Your task to perform on an android device: find photos in the google photos app Image 0: 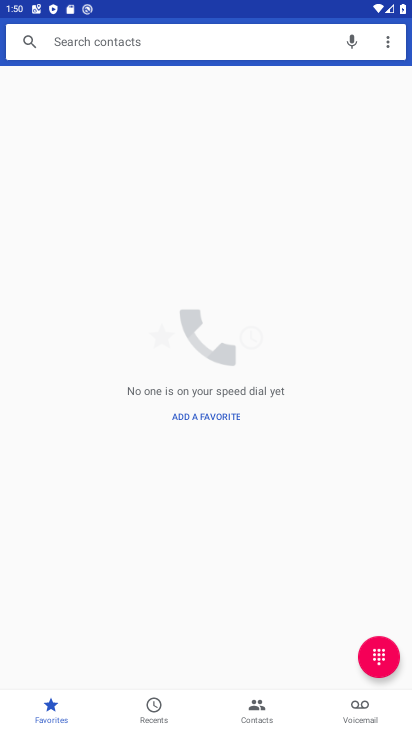
Step 0: press home button
Your task to perform on an android device: find photos in the google photos app Image 1: 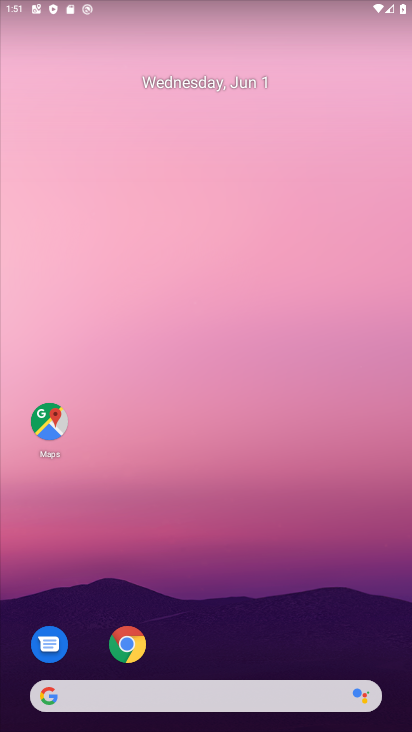
Step 1: drag from (240, 627) to (320, 211)
Your task to perform on an android device: find photos in the google photos app Image 2: 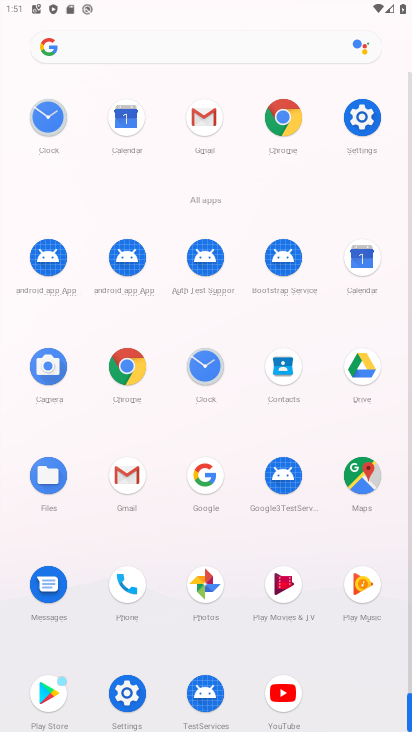
Step 2: click (208, 587)
Your task to perform on an android device: find photos in the google photos app Image 3: 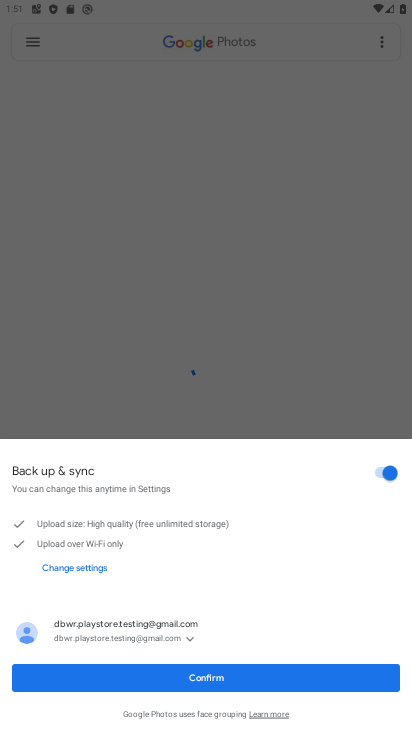
Step 3: click (194, 674)
Your task to perform on an android device: find photos in the google photos app Image 4: 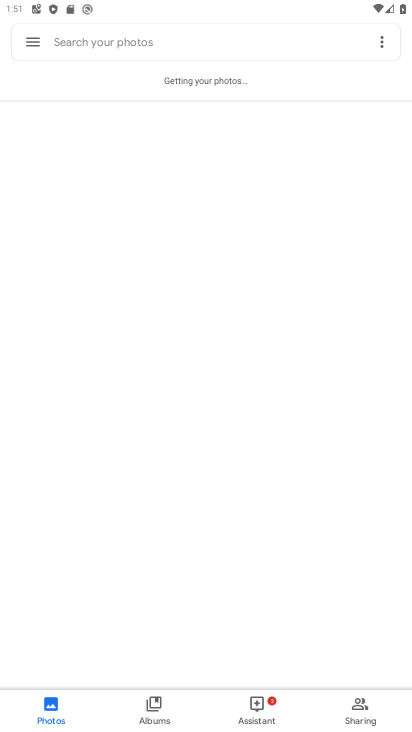
Step 4: click (157, 702)
Your task to perform on an android device: find photos in the google photos app Image 5: 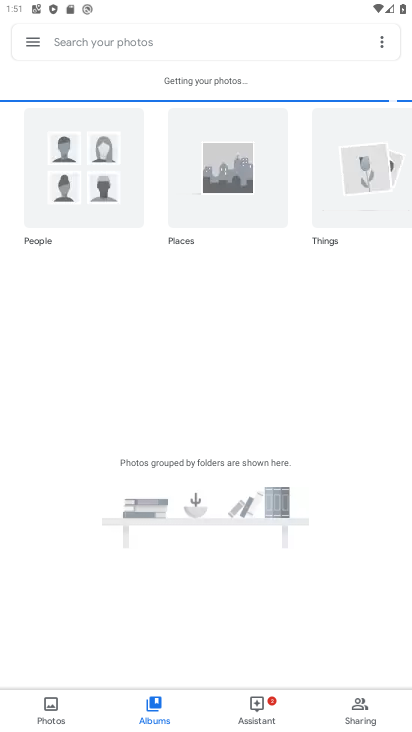
Step 5: click (44, 706)
Your task to perform on an android device: find photos in the google photos app Image 6: 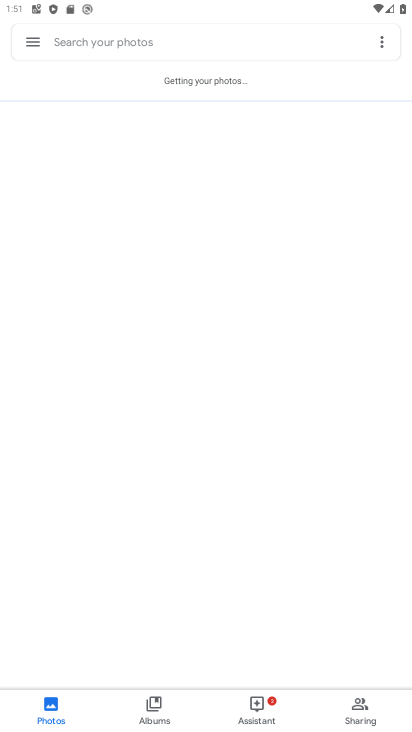
Step 6: task complete